Your task to perform on an android device: turn off location history Image 0: 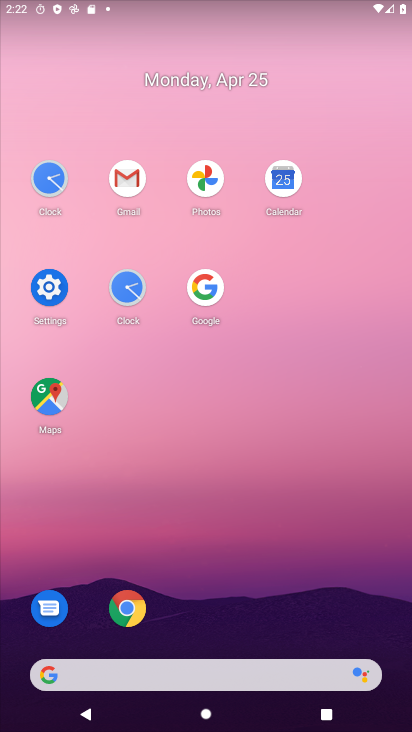
Step 0: click (215, 426)
Your task to perform on an android device: turn off location history Image 1: 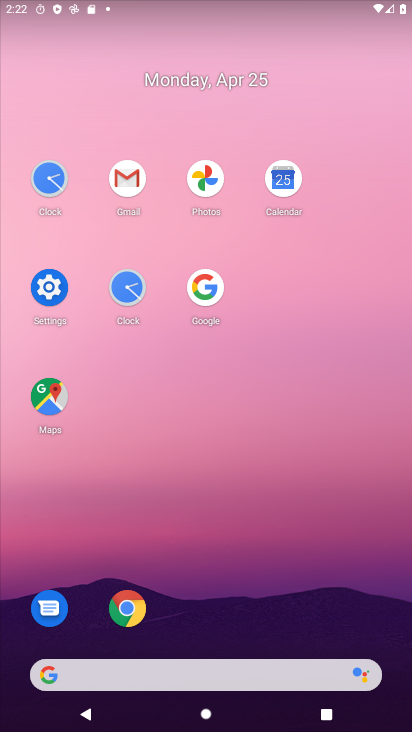
Step 1: click (37, 282)
Your task to perform on an android device: turn off location history Image 2: 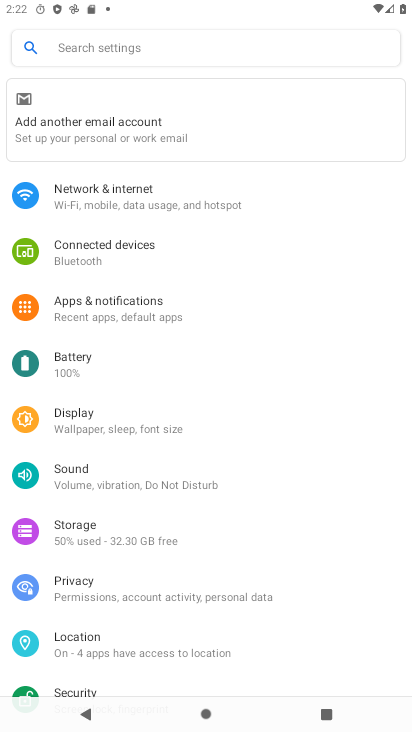
Step 2: click (163, 642)
Your task to perform on an android device: turn off location history Image 3: 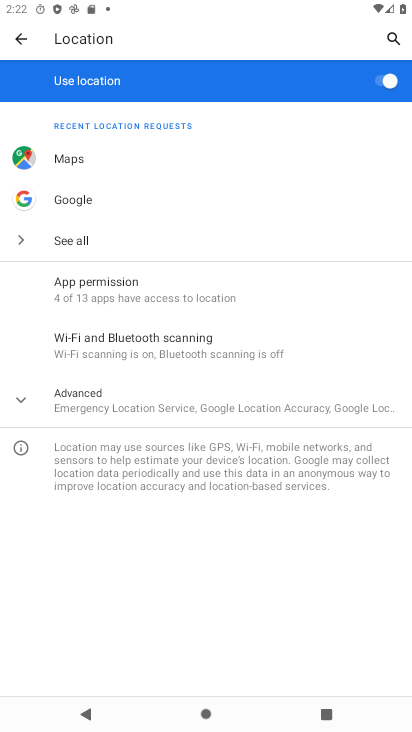
Step 3: click (123, 391)
Your task to perform on an android device: turn off location history Image 4: 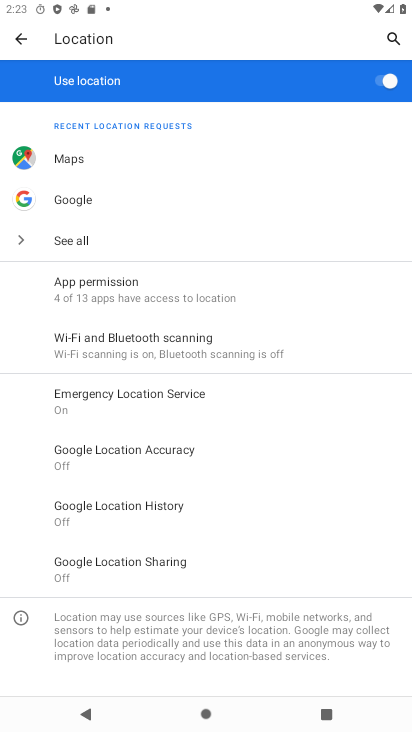
Step 4: click (140, 495)
Your task to perform on an android device: turn off location history Image 5: 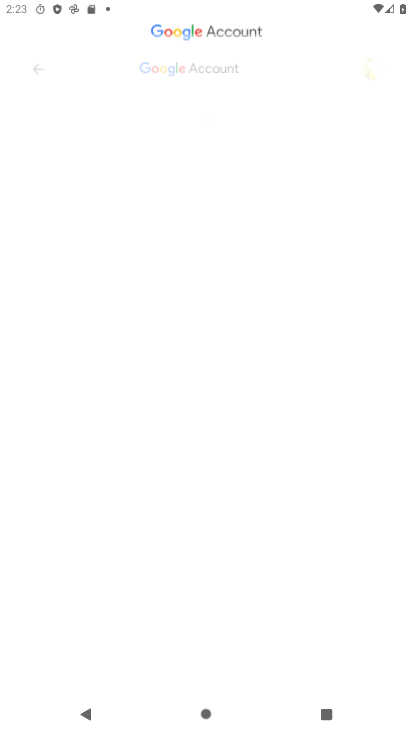
Step 5: task complete